Your task to perform on an android device: How do I get to the nearest Verizon Store? Image 0: 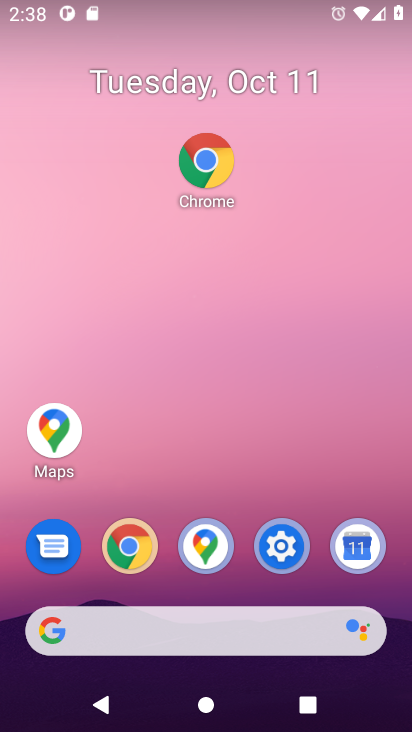
Step 0: click (213, 174)
Your task to perform on an android device: How do I get to the nearest Verizon Store? Image 1: 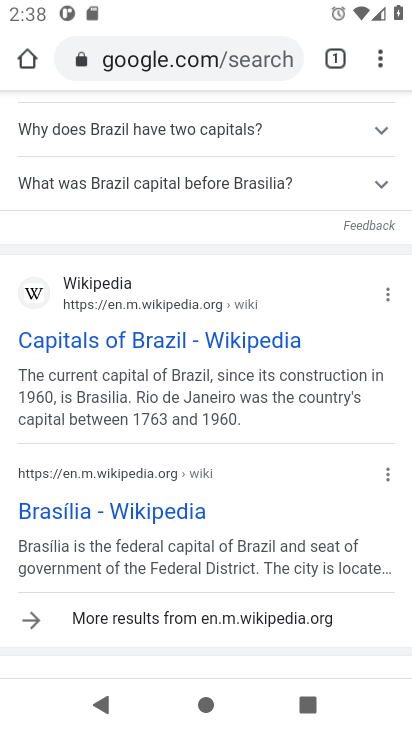
Step 1: click (208, 60)
Your task to perform on an android device: How do I get to the nearest Verizon Store? Image 2: 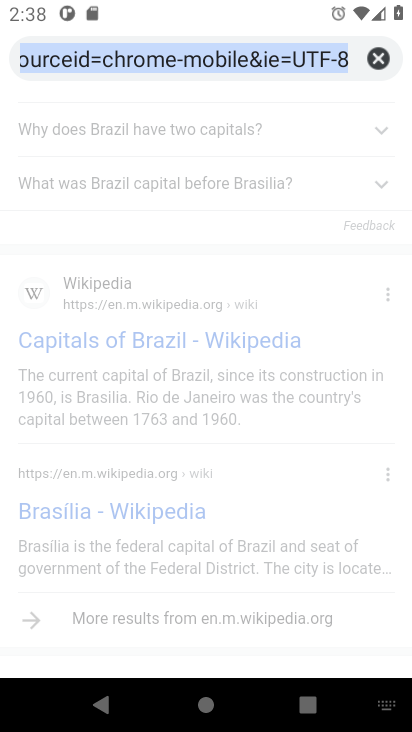
Step 2: type "nearest Verizon store"
Your task to perform on an android device: How do I get to the nearest Verizon Store? Image 3: 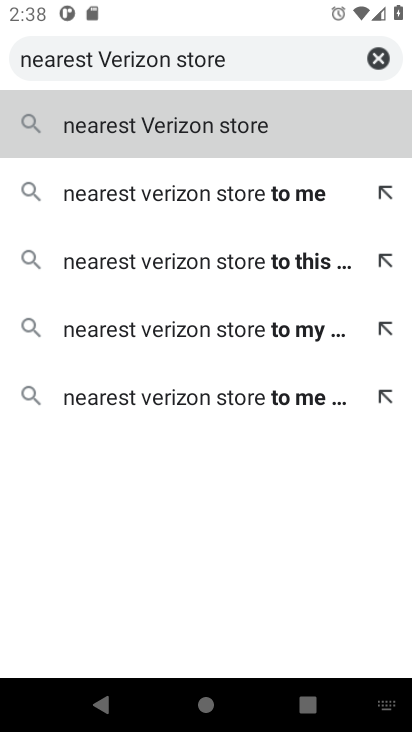
Step 3: type ""
Your task to perform on an android device: How do I get to the nearest Verizon Store? Image 4: 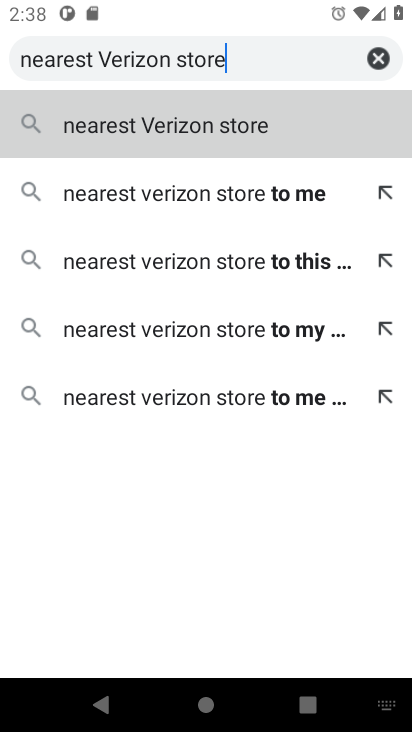
Step 4: press enter
Your task to perform on an android device: How do I get to the nearest Verizon Store? Image 5: 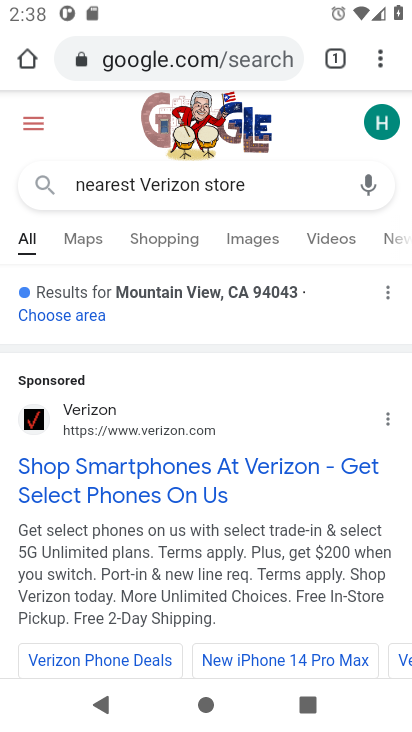
Step 5: drag from (174, 556) to (173, 222)
Your task to perform on an android device: How do I get to the nearest Verizon Store? Image 6: 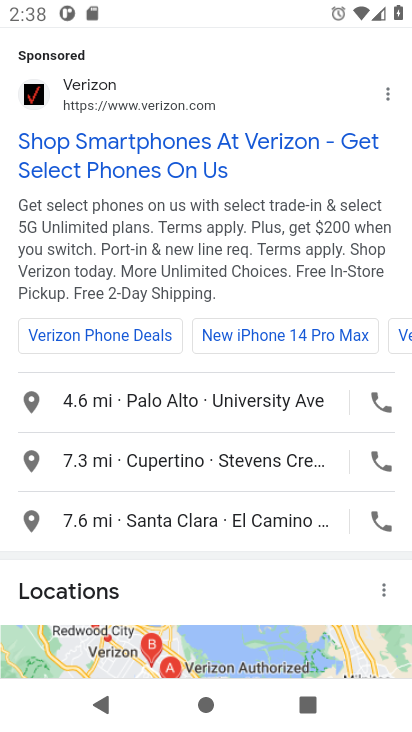
Step 6: drag from (214, 593) to (253, 203)
Your task to perform on an android device: How do I get to the nearest Verizon Store? Image 7: 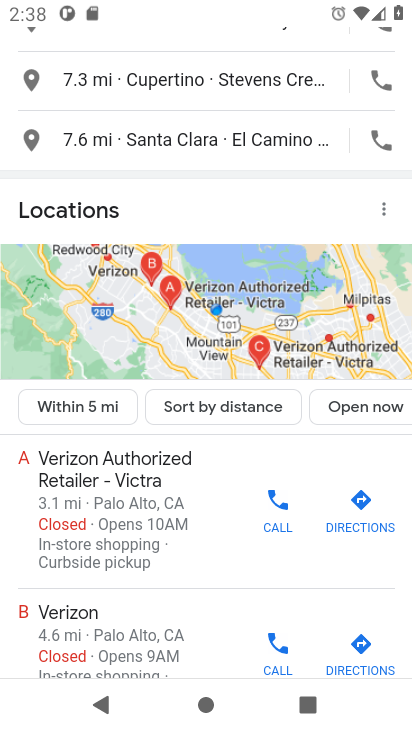
Step 7: drag from (189, 608) to (198, 289)
Your task to perform on an android device: How do I get to the nearest Verizon Store? Image 8: 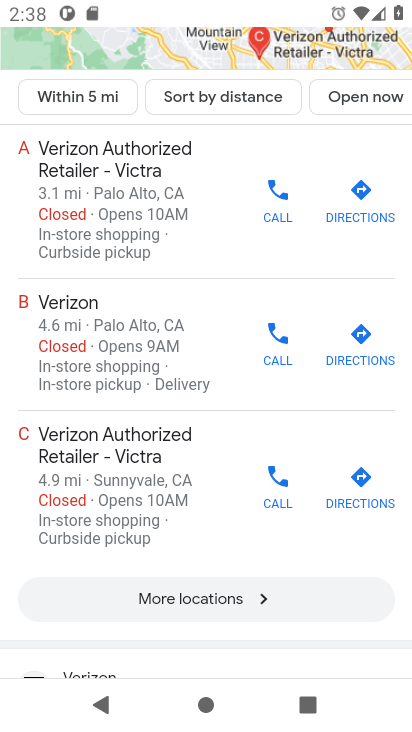
Step 8: drag from (195, 583) to (167, 186)
Your task to perform on an android device: How do I get to the nearest Verizon Store? Image 9: 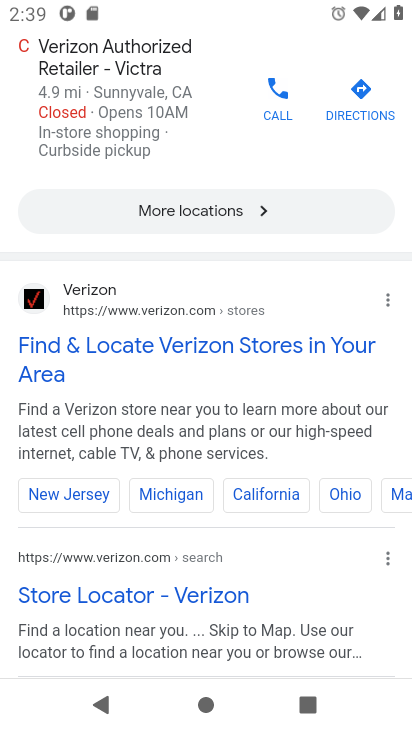
Step 9: drag from (215, 622) to (216, 441)
Your task to perform on an android device: How do I get to the nearest Verizon Store? Image 10: 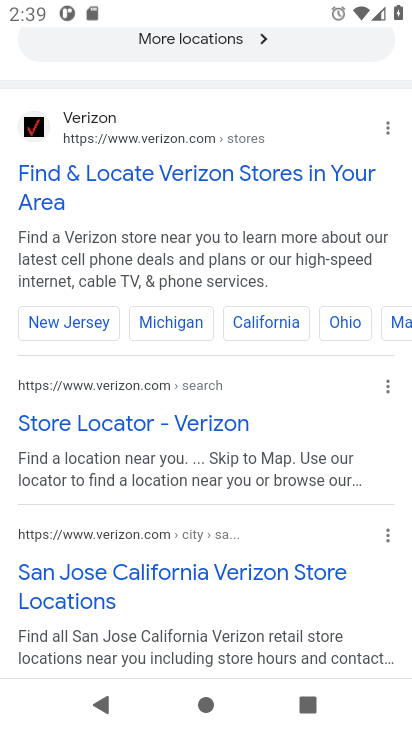
Step 10: click (182, 427)
Your task to perform on an android device: How do I get to the nearest Verizon Store? Image 11: 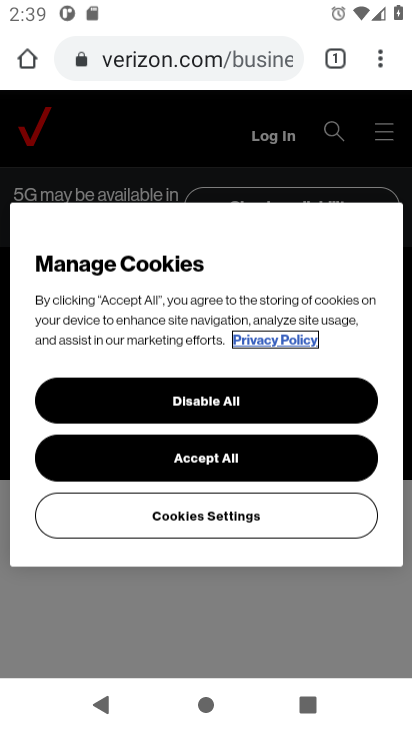
Step 11: click (258, 462)
Your task to perform on an android device: How do I get to the nearest Verizon Store? Image 12: 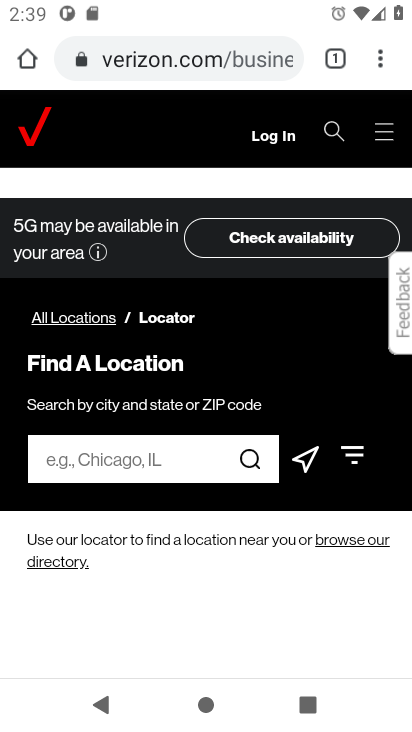
Step 12: click (127, 454)
Your task to perform on an android device: How do I get to the nearest Verizon Store? Image 13: 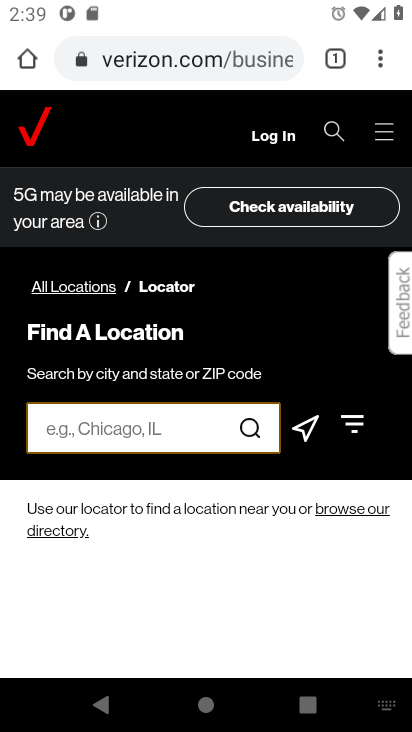
Step 13: drag from (236, 518) to (229, 346)
Your task to perform on an android device: How do I get to the nearest Verizon Store? Image 14: 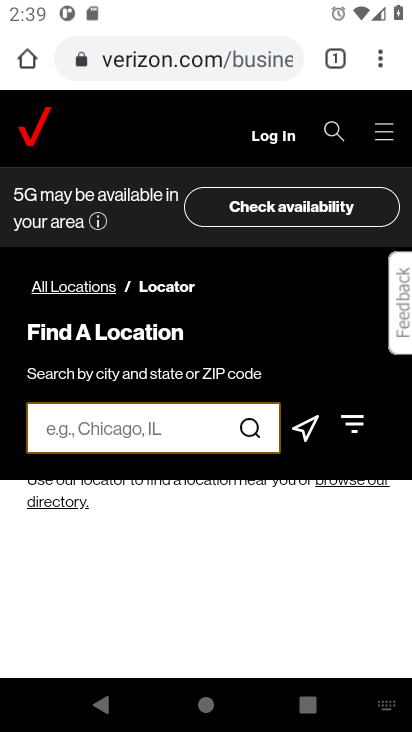
Step 14: drag from (183, 524) to (202, 681)
Your task to perform on an android device: How do I get to the nearest Verizon Store? Image 15: 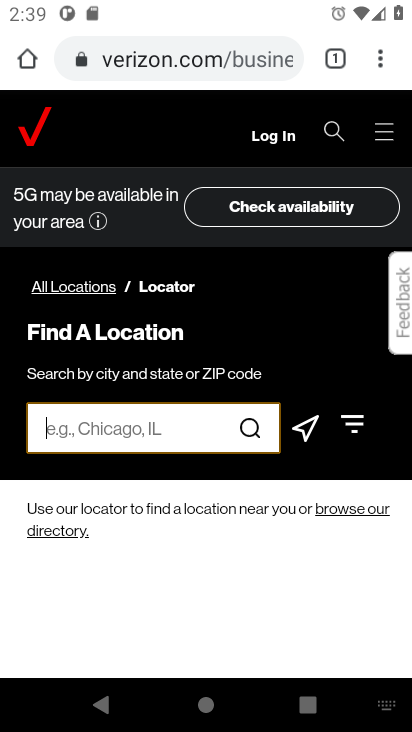
Step 15: drag from (179, 535) to (197, 623)
Your task to perform on an android device: How do I get to the nearest Verizon Store? Image 16: 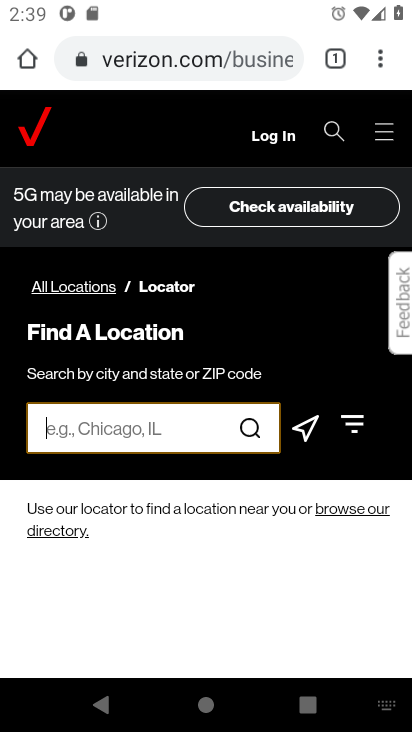
Step 16: click (355, 424)
Your task to perform on an android device: How do I get to the nearest Verizon Store? Image 17: 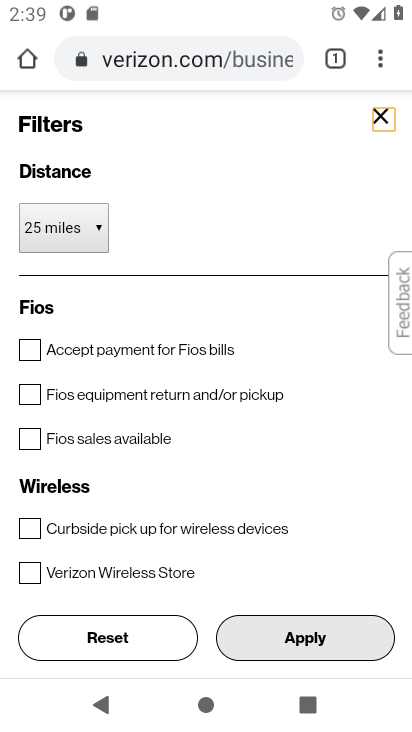
Step 17: click (389, 121)
Your task to perform on an android device: How do I get to the nearest Verizon Store? Image 18: 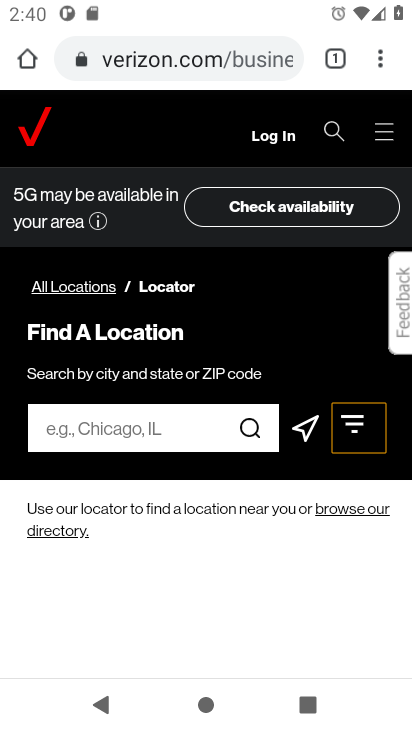
Step 18: press back button
Your task to perform on an android device: How do I get to the nearest Verizon Store? Image 19: 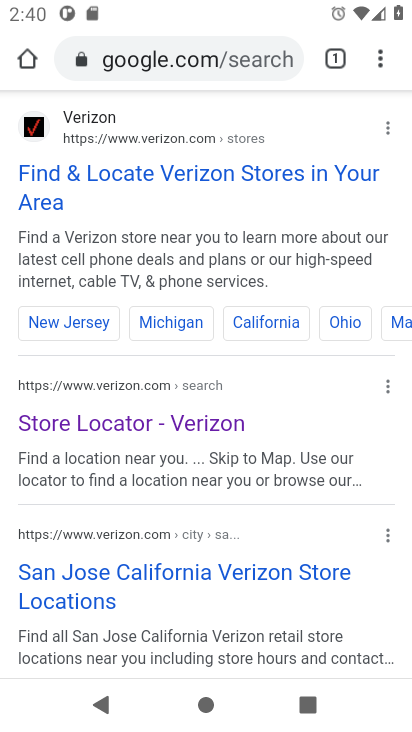
Step 19: click (96, 181)
Your task to perform on an android device: How do I get to the nearest Verizon Store? Image 20: 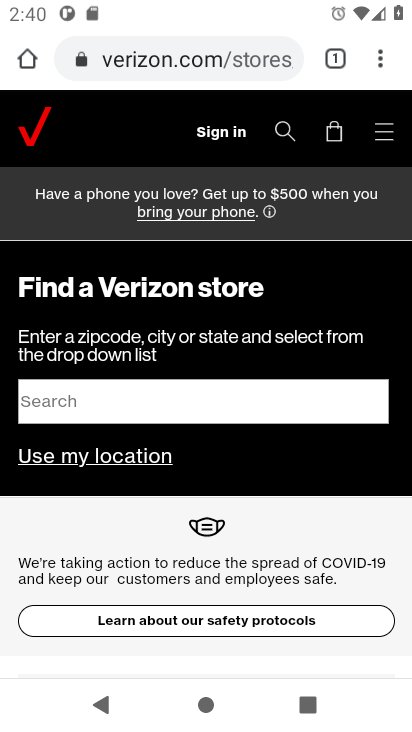
Step 20: drag from (243, 478) to (254, 279)
Your task to perform on an android device: How do I get to the nearest Verizon Store? Image 21: 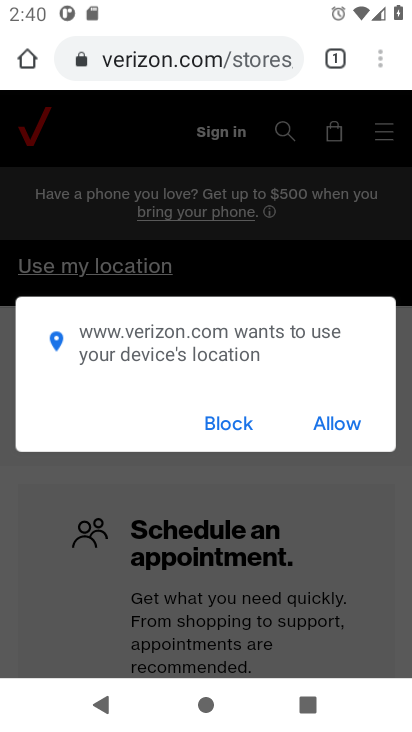
Step 21: press back button
Your task to perform on an android device: How do I get to the nearest Verizon Store? Image 22: 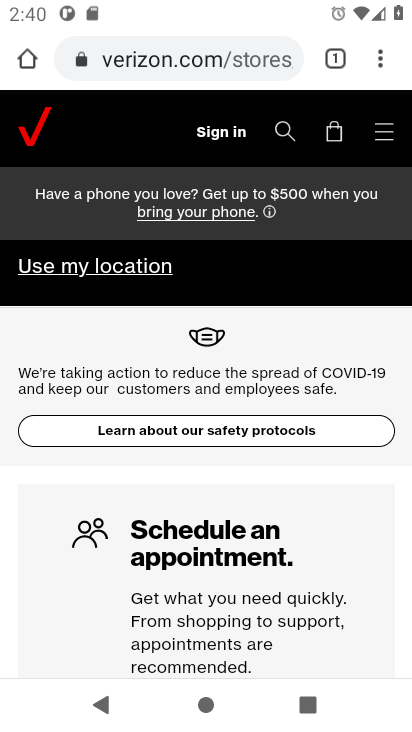
Step 22: press back button
Your task to perform on an android device: How do I get to the nearest Verizon Store? Image 23: 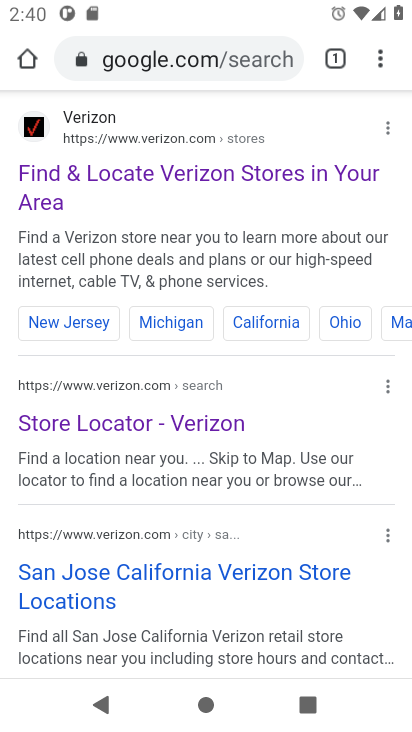
Step 23: click (173, 176)
Your task to perform on an android device: How do I get to the nearest Verizon Store? Image 24: 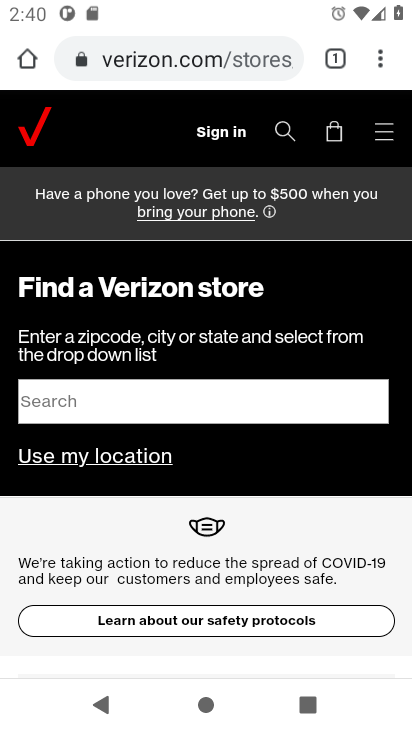
Step 24: drag from (259, 565) to (273, 341)
Your task to perform on an android device: How do I get to the nearest Verizon Store? Image 25: 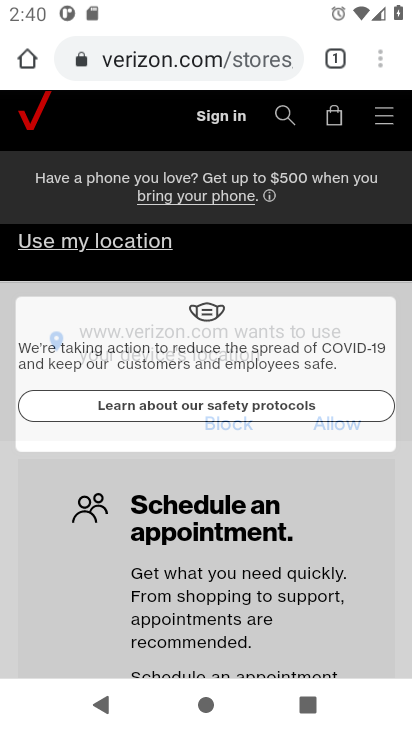
Step 25: drag from (260, 557) to (296, 405)
Your task to perform on an android device: How do I get to the nearest Verizon Store? Image 26: 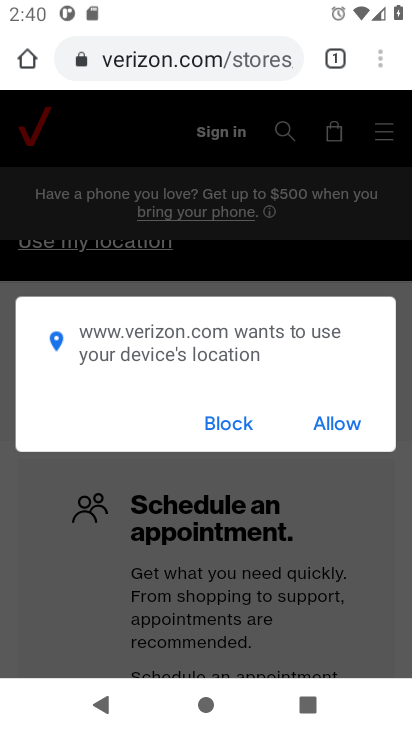
Step 26: click (329, 417)
Your task to perform on an android device: How do I get to the nearest Verizon Store? Image 27: 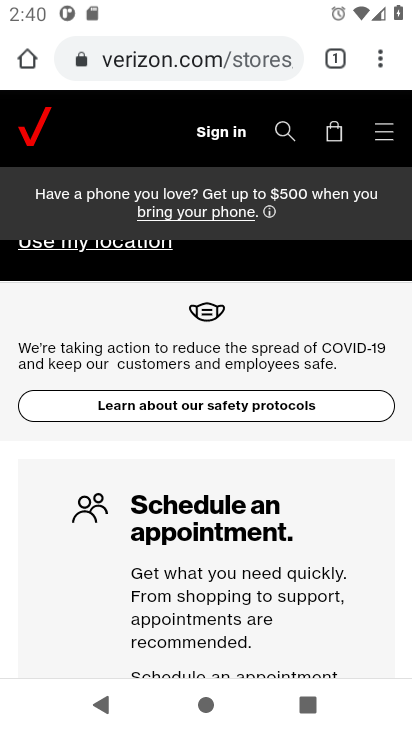
Step 27: drag from (239, 366) to (257, 581)
Your task to perform on an android device: How do I get to the nearest Verizon Store? Image 28: 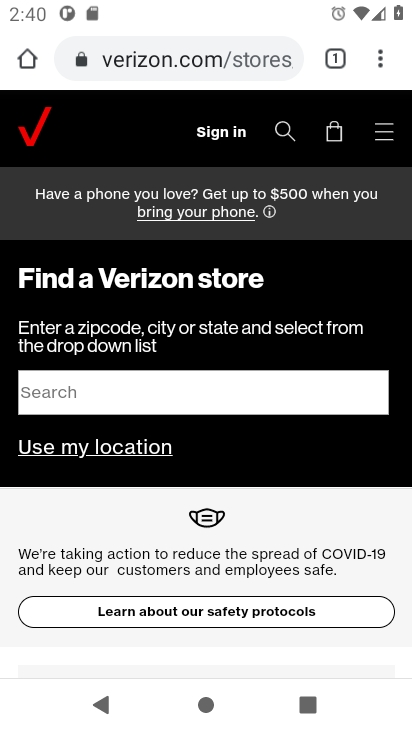
Step 28: click (108, 449)
Your task to perform on an android device: How do I get to the nearest Verizon Store? Image 29: 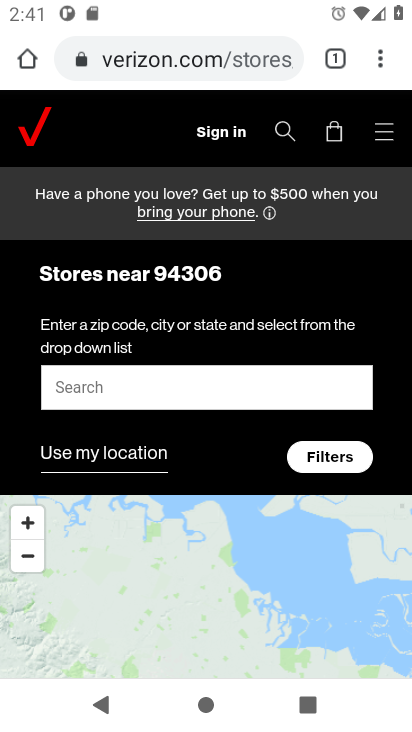
Step 29: task complete